Your task to perform on an android device: turn off smart reply in the gmail app Image 0: 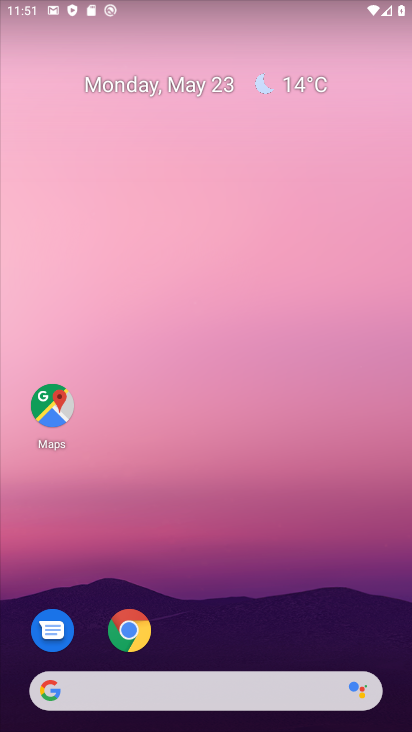
Step 0: drag from (230, 471) to (262, 229)
Your task to perform on an android device: turn off smart reply in the gmail app Image 1: 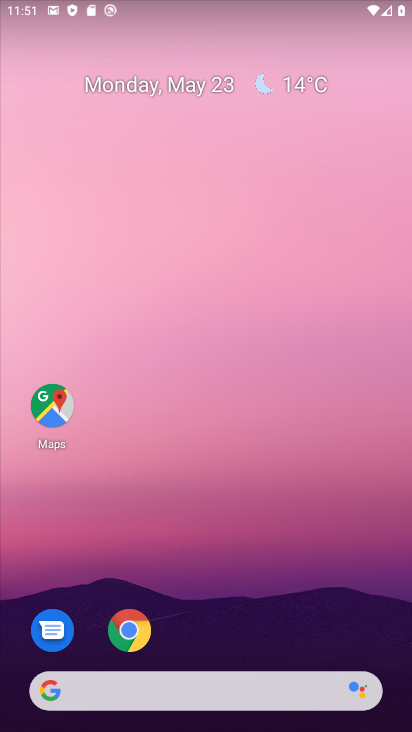
Step 1: drag from (227, 612) to (307, 206)
Your task to perform on an android device: turn off smart reply in the gmail app Image 2: 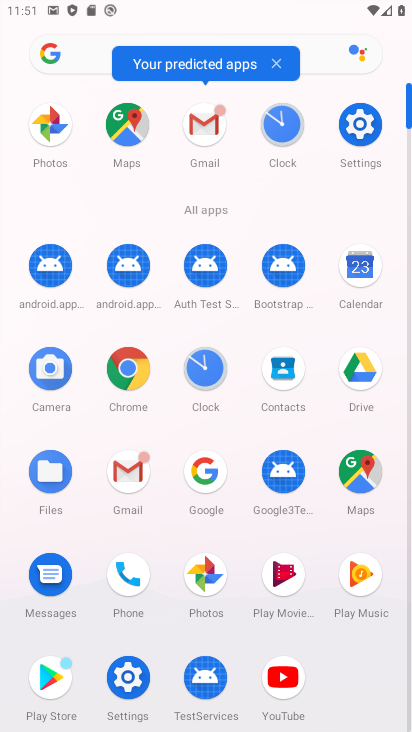
Step 2: click (134, 474)
Your task to perform on an android device: turn off smart reply in the gmail app Image 3: 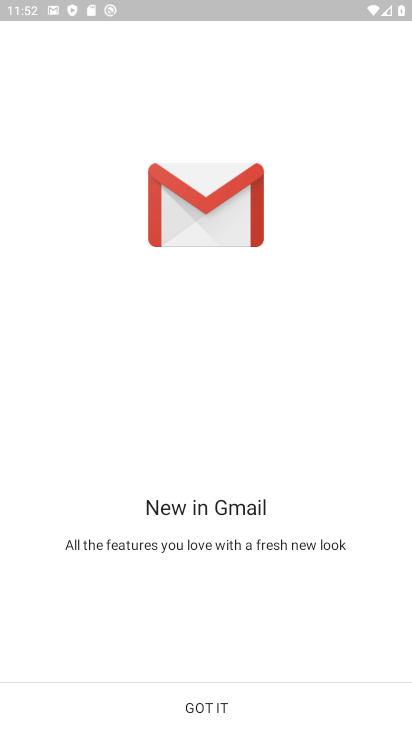
Step 3: click (213, 691)
Your task to perform on an android device: turn off smart reply in the gmail app Image 4: 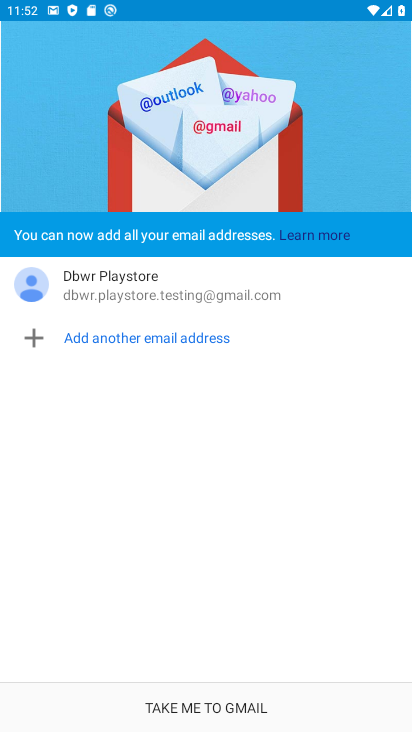
Step 4: click (230, 712)
Your task to perform on an android device: turn off smart reply in the gmail app Image 5: 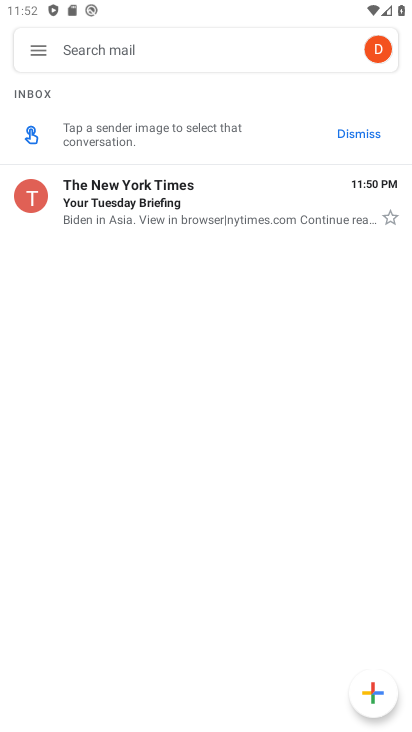
Step 5: click (45, 58)
Your task to perform on an android device: turn off smart reply in the gmail app Image 6: 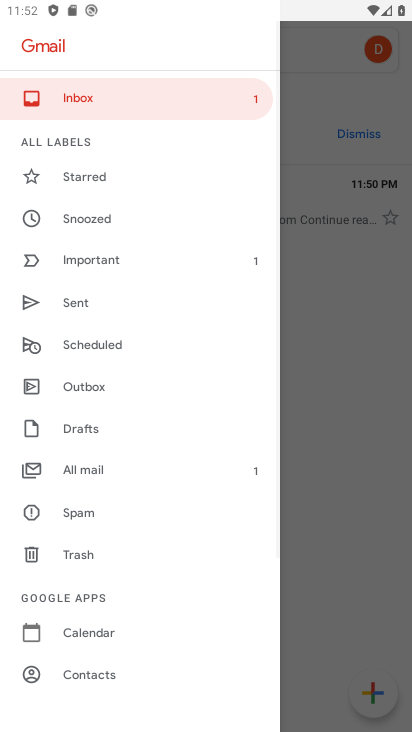
Step 6: drag from (108, 648) to (159, 290)
Your task to perform on an android device: turn off smart reply in the gmail app Image 7: 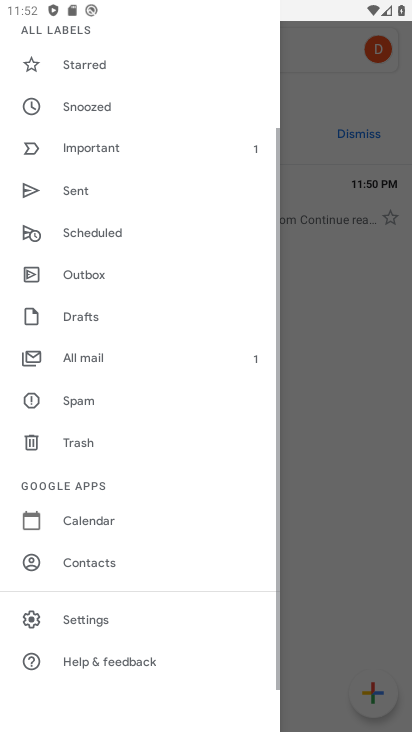
Step 7: click (98, 625)
Your task to perform on an android device: turn off smart reply in the gmail app Image 8: 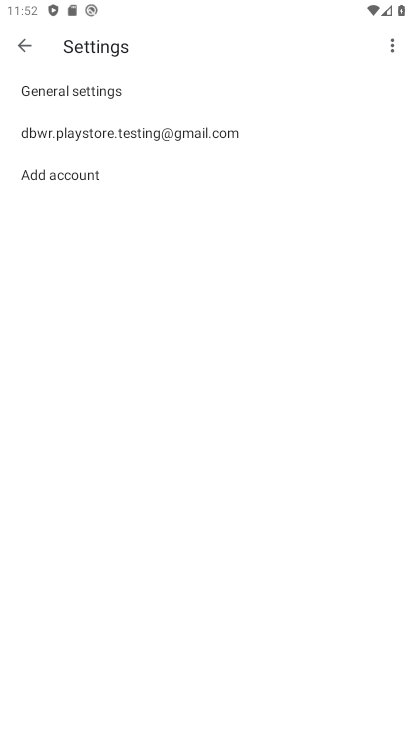
Step 8: click (217, 134)
Your task to perform on an android device: turn off smart reply in the gmail app Image 9: 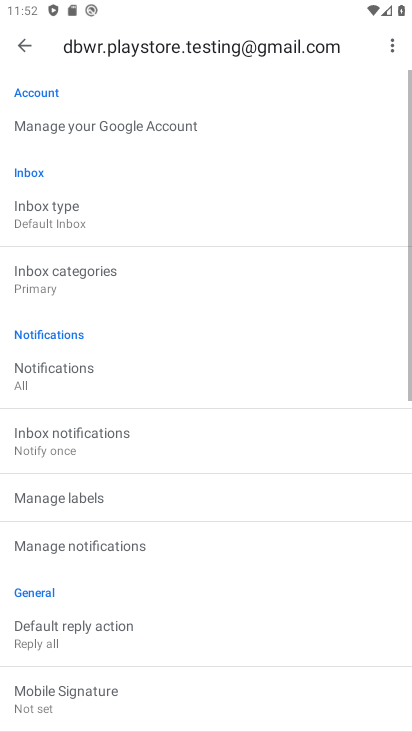
Step 9: drag from (221, 591) to (259, 180)
Your task to perform on an android device: turn off smart reply in the gmail app Image 10: 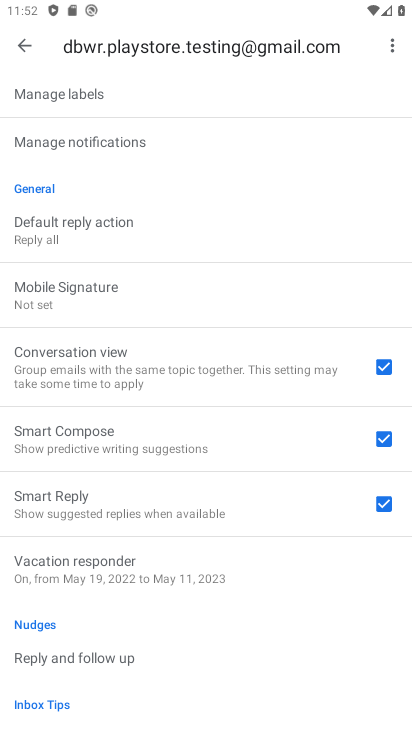
Step 10: click (387, 501)
Your task to perform on an android device: turn off smart reply in the gmail app Image 11: 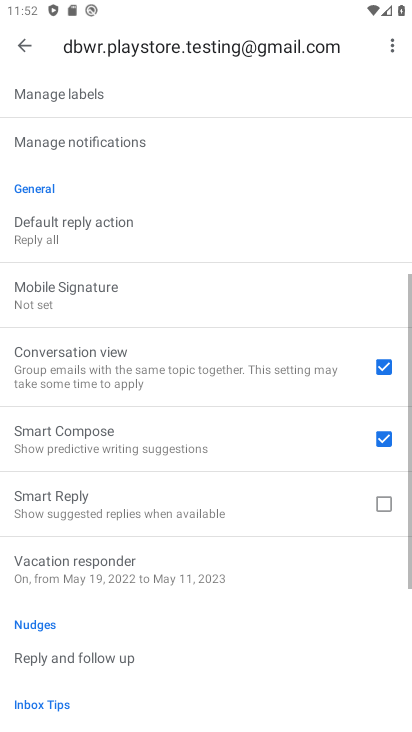
Step 11: task complete